Your task to perform on an android device: read, delete, or share a saved page in the chrome app Image 0: 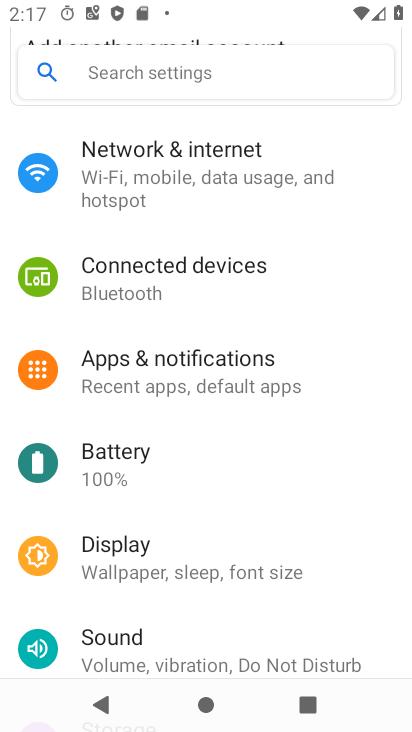
Step 0: press home button
Your task to perform on an android device: read, delete, or share a saved page in the chrome app Image 1: 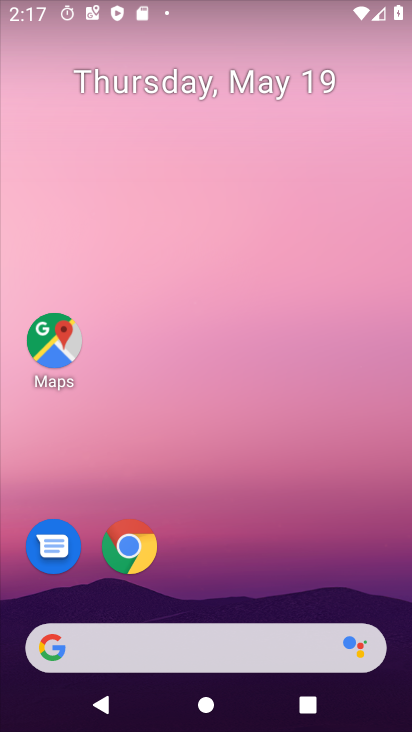
Step 1: click (143, 547)
Your task to perform on an android device: read, delete, or share a saved page in the chrome app Image 2: 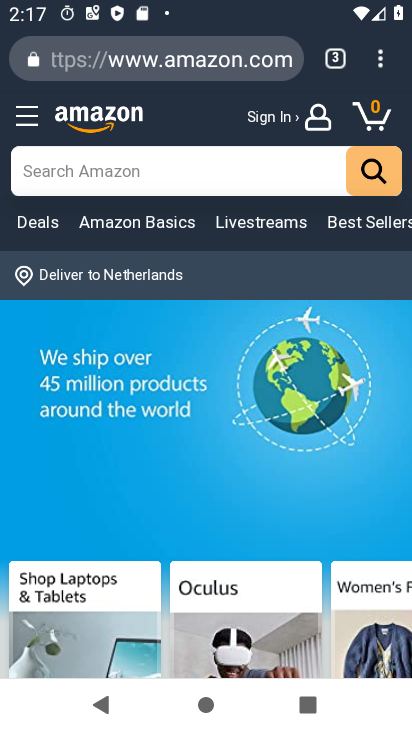
Step 2: click (391, 64)
Your task to perform on an android device: read, delete, or share a saved page in the chrome app Image 3: 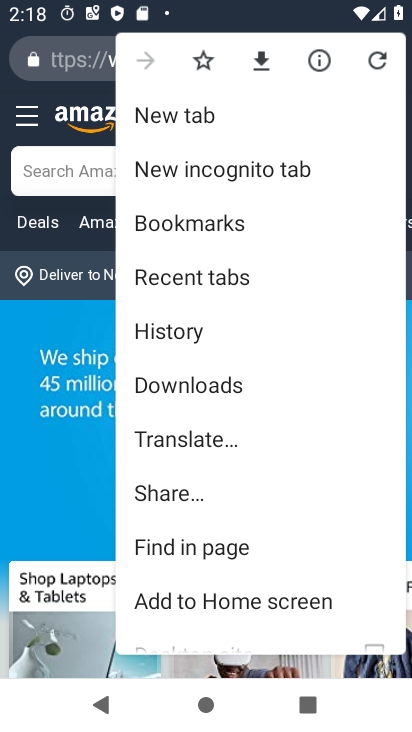
Step 3: click (230, 384)
Your task to perform on an android device: read, delete, or share a saved page in the chrome app Image 4: 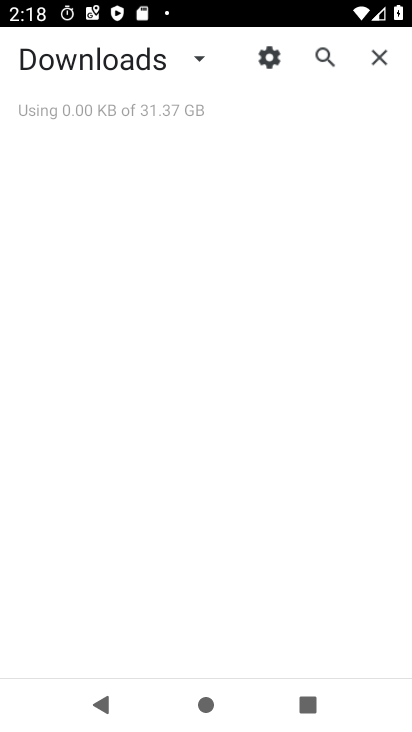
Step 4: click (230, 384)
Your task to perform on an android device: read, delete, or share a saved page in the chrome app Image 5: 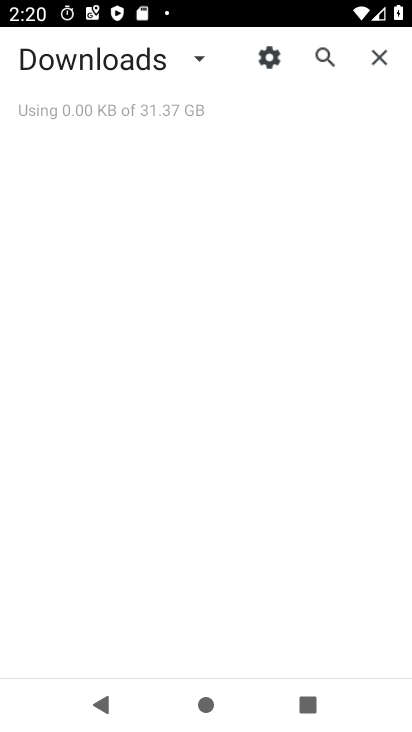
Step 5: task complete